Your task to perform on an android device: Open Android settings Image 0: 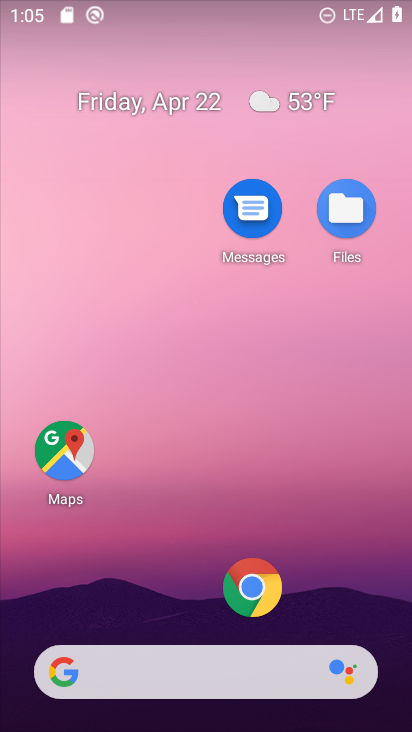
Step 0: drag from (160, 584) to (241, 233)
Your task to perform on an android device: Open Android settings Image 1: 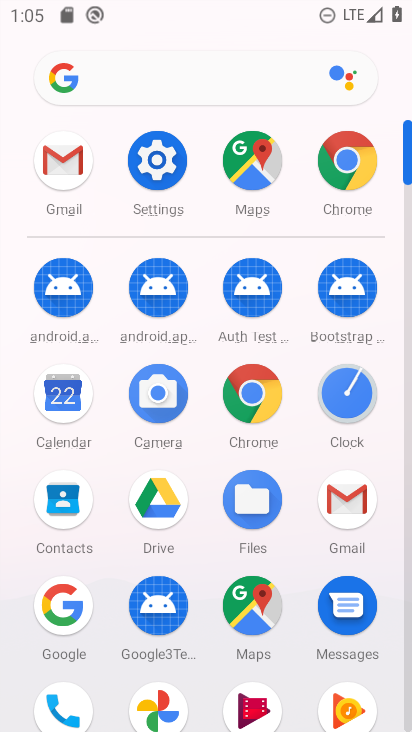
Step 1: click (158, 164)
Your task to perform on an android device: Open Android settings Image 2: 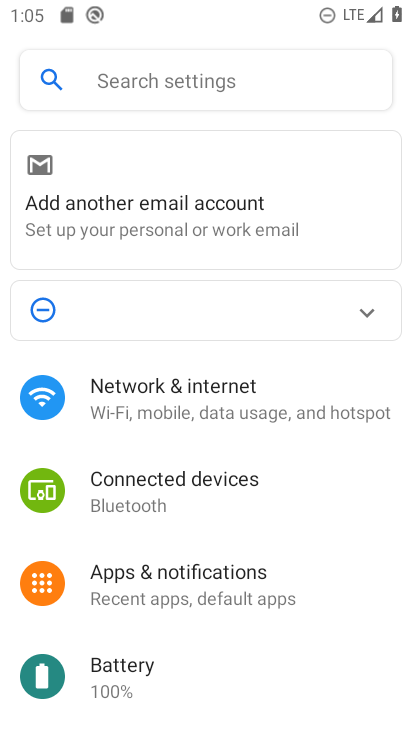
Step 2: task complete